Your task to perform on an android device: Open eBay Image 0: 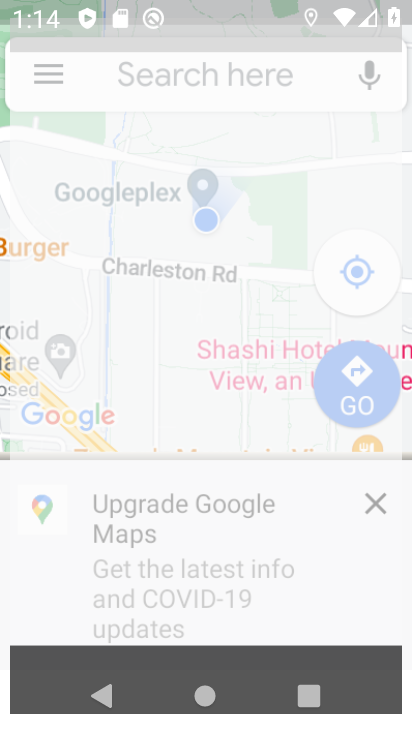
Step 0: press home button
Your task to perform on an android device: Open eBay Image 1: 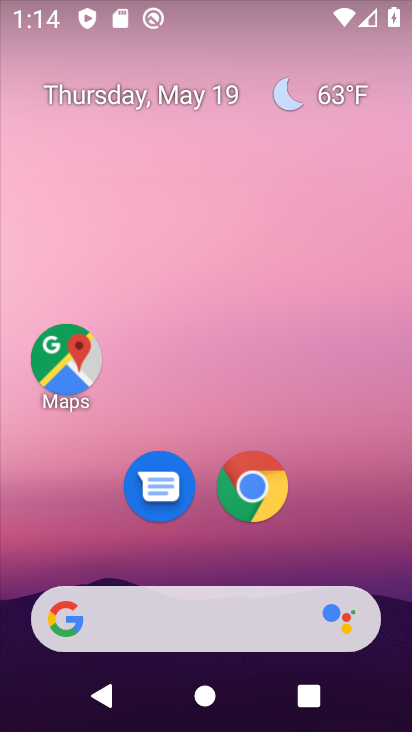
Step 1: click (272, 491)
Your task to perform on an android device: Open eBay Image 2: 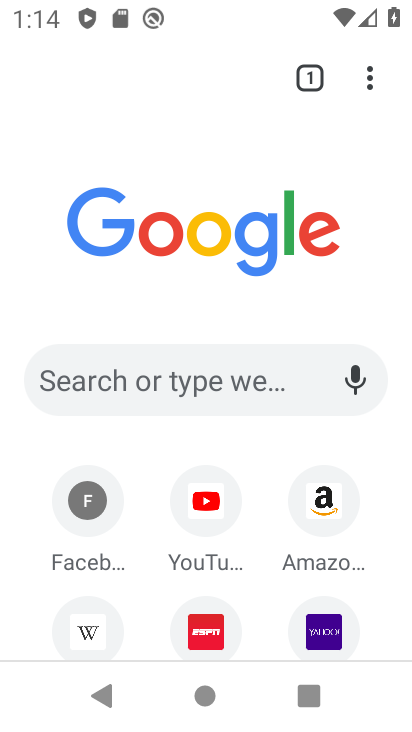
Step 2: drag from (287, 545) to (270, 210)
Your task to perform on an android device: Open eBay Image 3: 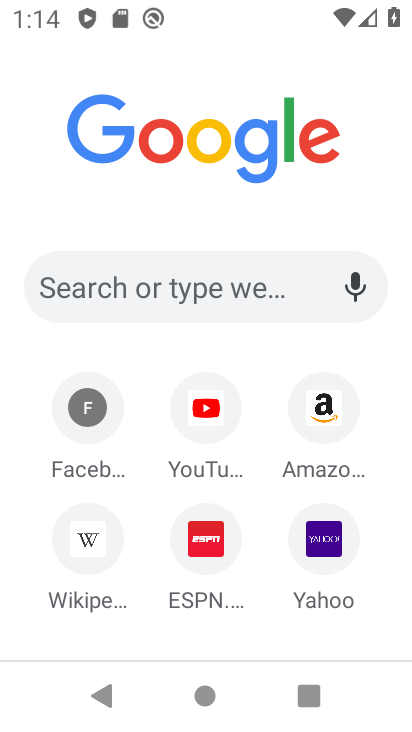
Step 3: click (201, 302)
Your task to perform on an android device: Open eBay Image 4: 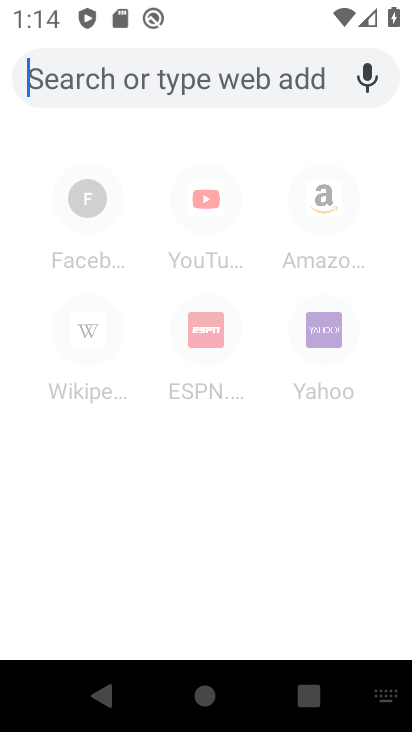
Step 4: type "eBay"
Your task to perform on an android device: Open eBay Image 5: 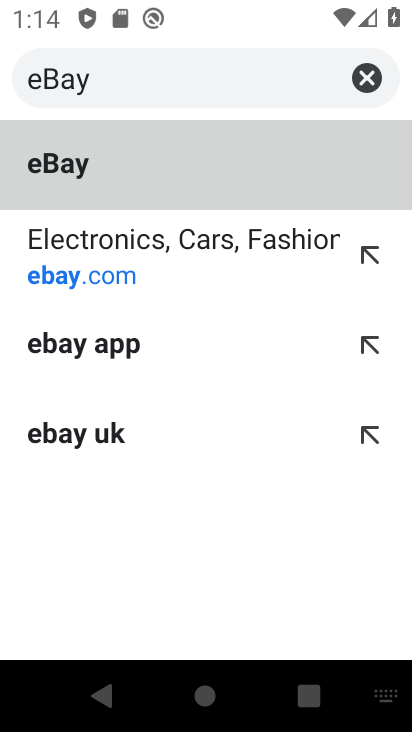
Step 5: click (138, 269)
Your task to perform on an android device: Open eBay Image 6: 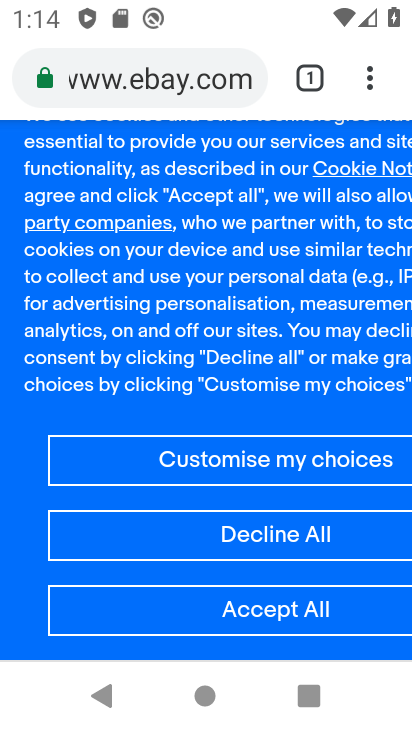
Step 6: task complete